Your task to perform on an android device: turn off javascript in the chrome app Image 0: 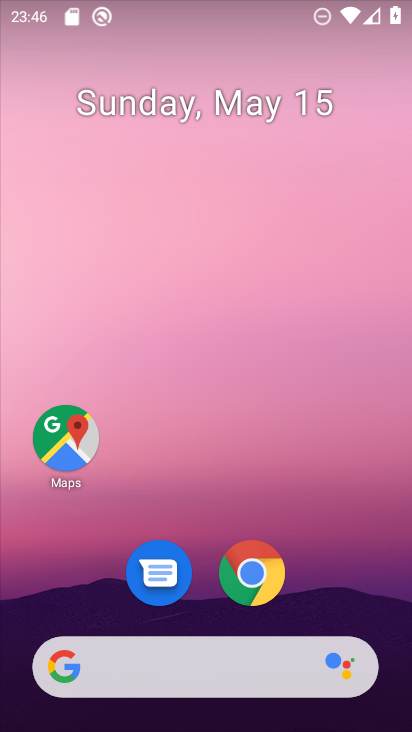
Step 0: click (380, 600)
Your task to perform on an android device: turn off javascript in the chrome app Image 1: 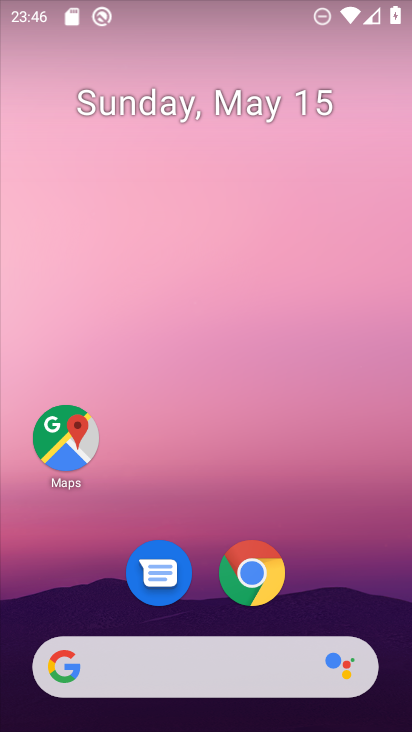
Step 1: click (249, 577)
Your task to perform on an android device: turn off javascript in the chrome app Image 2: 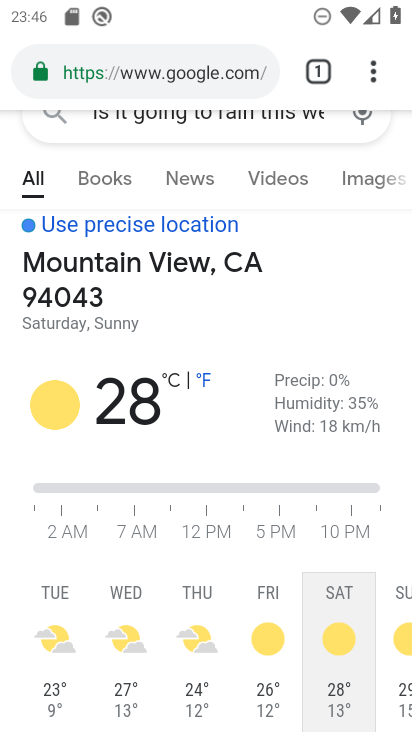
Step 2: drag from (377, 78) to (151, 575)
Your task to perform on an android device: turn off javascript in the chrome app Image 3: 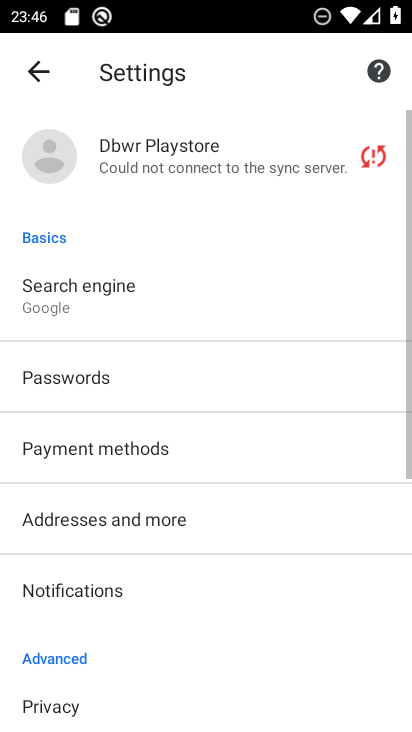
Step 3: drag from (159, 579) to (171, 228)
Your task to perform on an android device: turn off javascript in the chrome app Image 4: 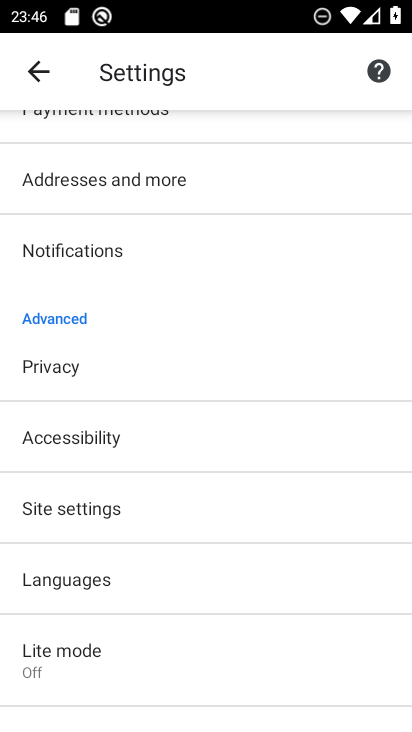
Step 4: click (94, 504)
Your task to perform on an android device: turn off javascript in the chrome app Image 5: 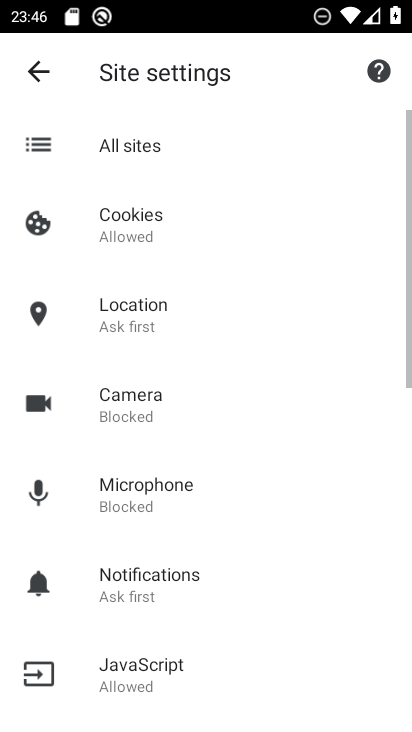
Step 5: drag from (212, 653) to (205, 266)
Your task to perform on an android device: turn off javascript in the chrome app Image 6: 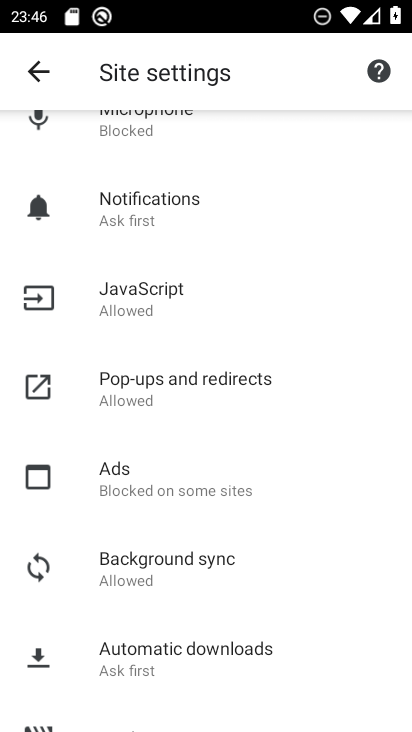
Step 6: click (143, 318)
Your task to perform on an android device: turn off javascript in the chrome app Image 7: 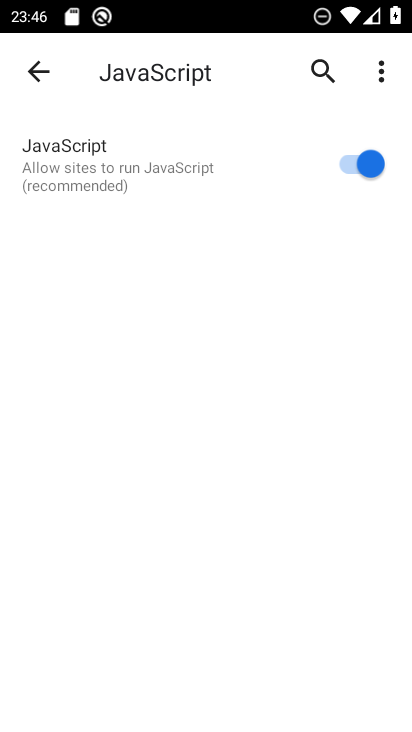
Step 7: click (323, 156)
Your task to perform on an android device: turn off javascript in the chrome app Image 8: 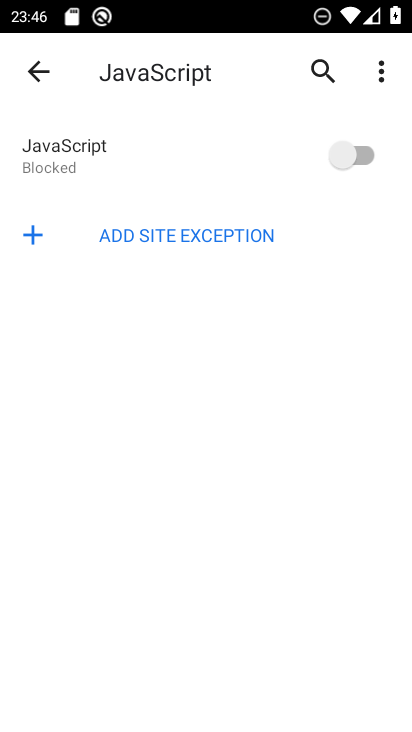
Step 8: task complete